Your task to perform on an android device: toggle sleep mode Image 0: 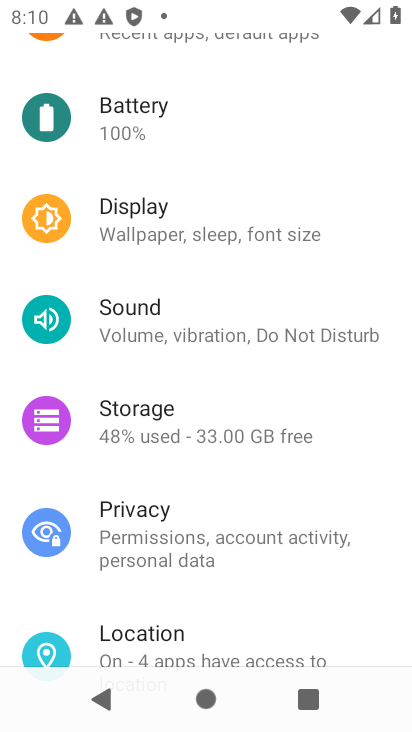
Step 0: click (128, 225)
Your task to perform on an android device: toggle sleep mode Image 1: 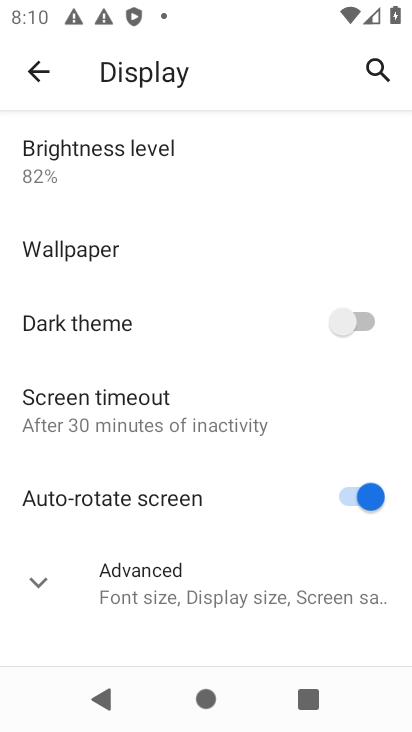
Step 1: click (99, 562)
Your task to perform on an android device: toggle sleep mode Image 2: 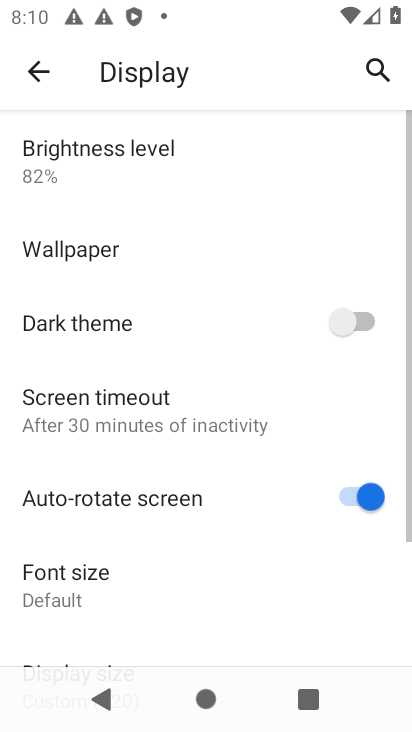
Step 2: task complete